Your task to perform on an android device: Open Google Image 0: 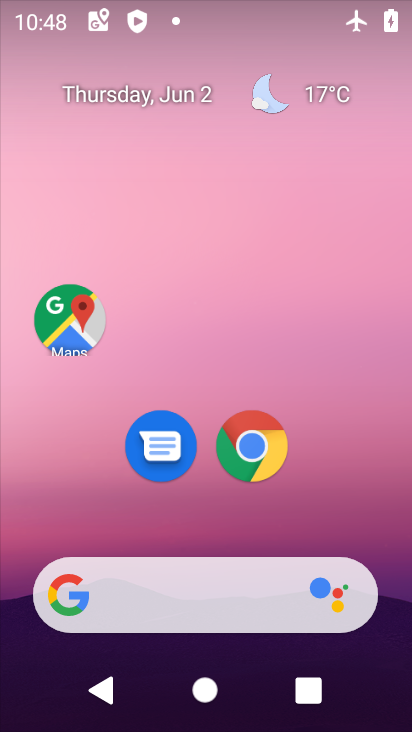
Step 0: drag from (362, 519) to (374, 187)
Your task to perform on an android device: Open Google Image 1: 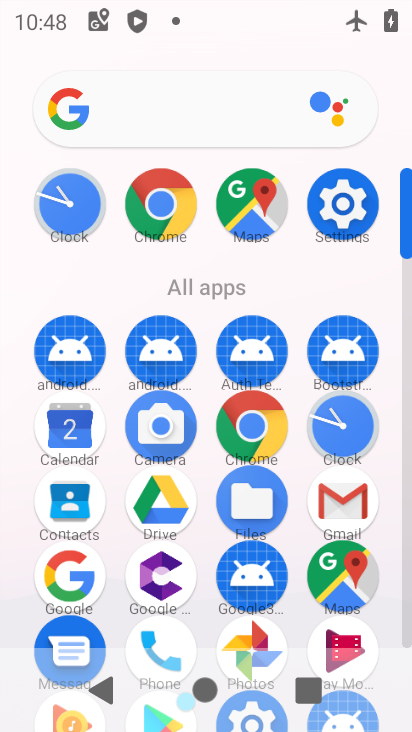
Step 1: drag from (384, 560) to (400, 288)
Your task to perform on an android device: Open Google Image 2: 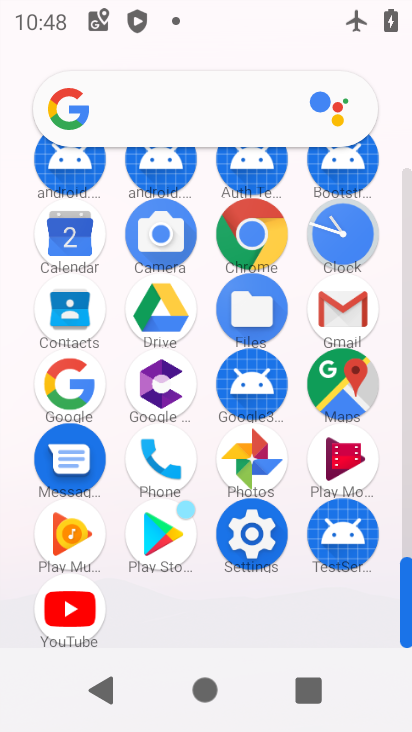
Step 2: click (75, 399)
Your task to perform on an android device: Open Google Image 3: 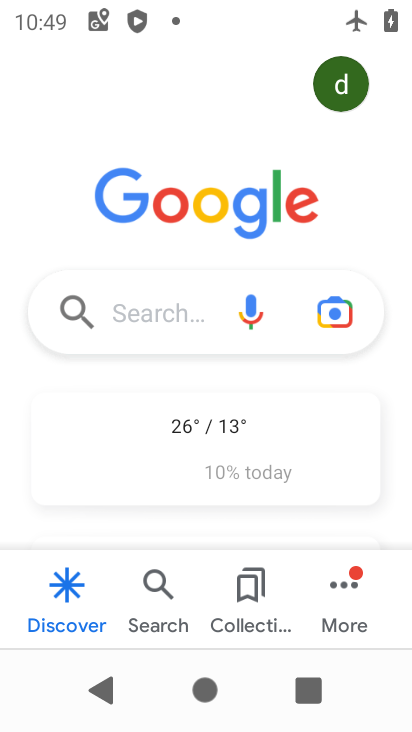
Step 3: task complete